Your task to perform on an android device: set an alarm Image 0: 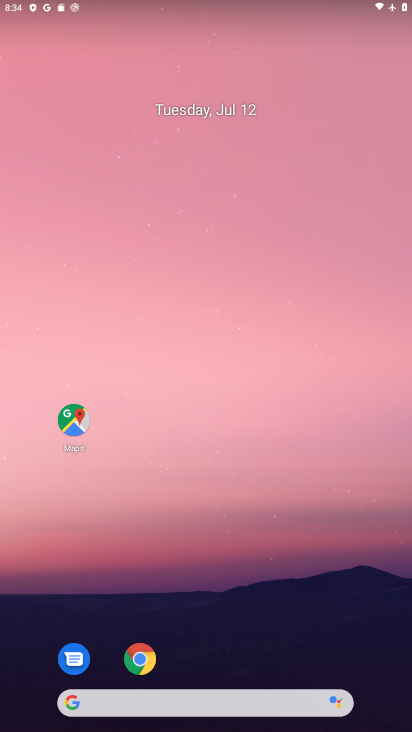
Step 0: drag from (290, 709) to (409, 277)
Your task to perform on an android device: set an alarm Image 1: 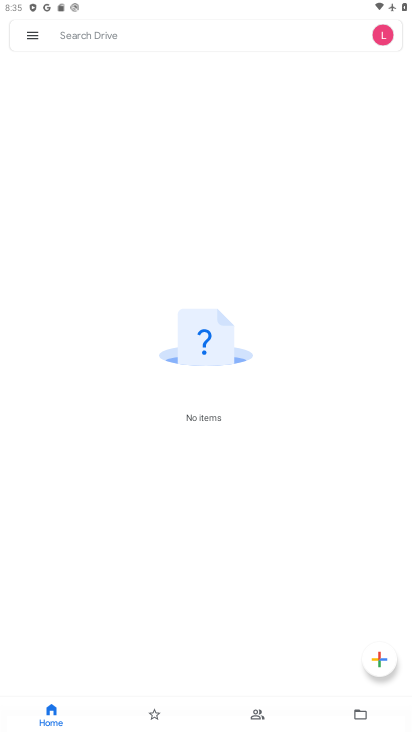
Step 1: press back button
Your task to perform on an android device: set an alarm Image 2: 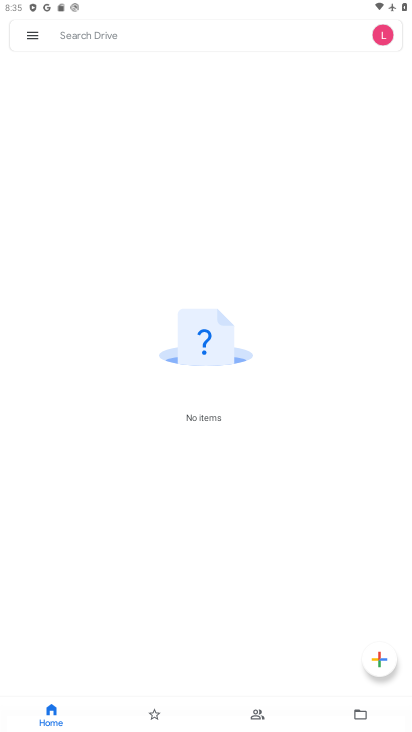
Step 2: press back button
Your task to perform on an android device: set an alarm Image 3: 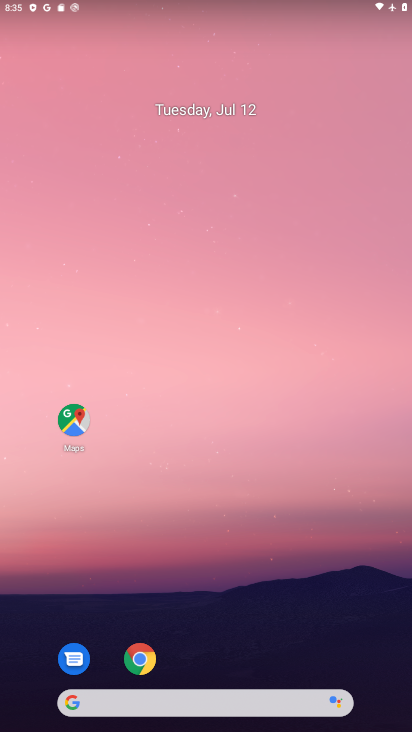
Step 3: drag from (229, 690) to (289, 208)
Your task to perform on an android device: set an alarm Image 4: 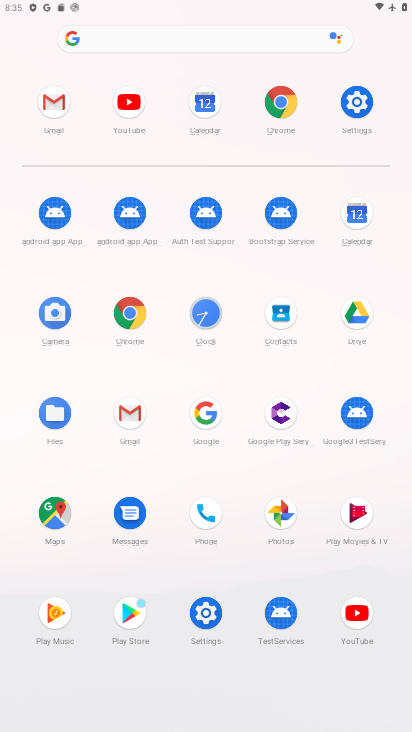
Step 4: click (211, 313)
Your task to perform on an android device: set an alarm Image 5: 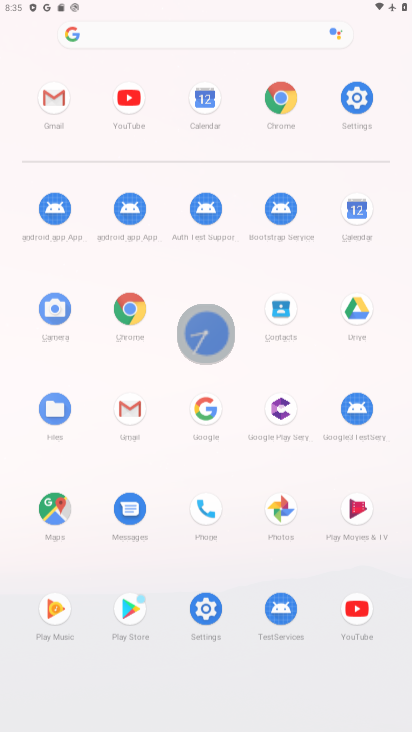
Step 5: click (213, 308)
Your task to perform on an android device: set an alarm Image 6: 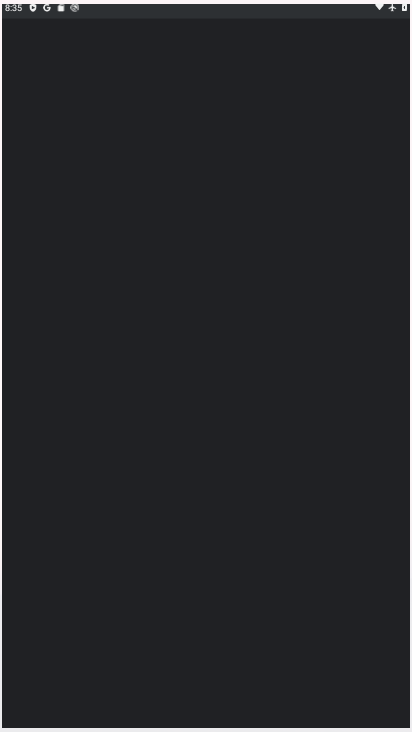
Step 6: click (213, 308)
Your task to perform on an android device: set an alarm Image 7: 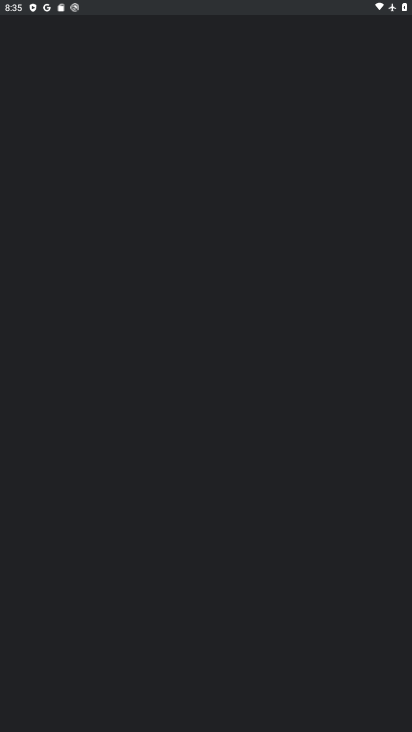
Step 7: click (215, 307)
Your task to perform on an android device: set an alarm Image 8: 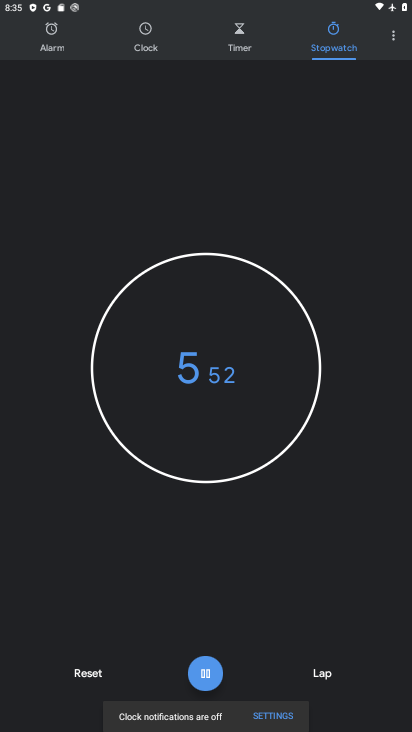
Step 8: click (203, 676)
Your task to perform on an android device: set an alarm Image 9: 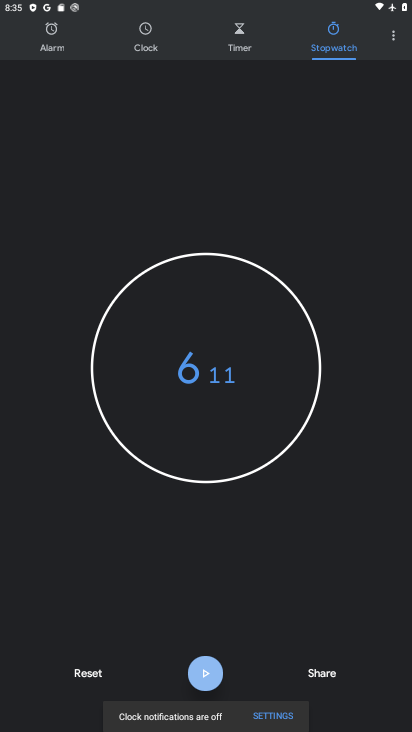
Step 9: click (205, 674)
Your task to perform on an android device: set an alarm Image 10: 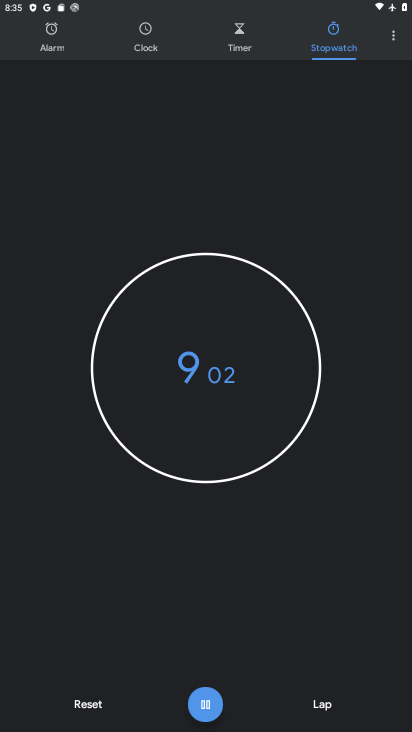
Step 10: click (208, 698)
Your task to perform on an android device: set an alarm Image 11: 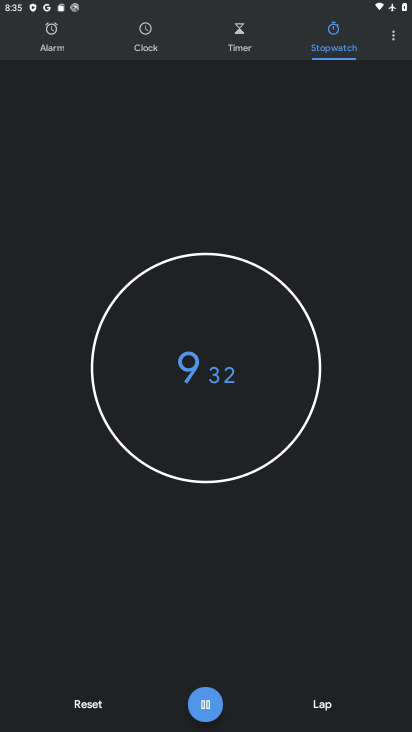
Step 11: click (211, 706)
Your task to perform on an android device: set an alarm Image 12: 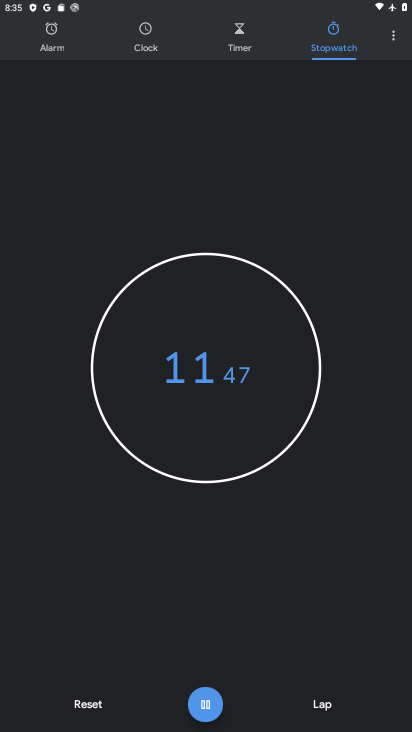
Step 12: click (201, 703)
Your task to perform on an android device: set an alarm Image 13: 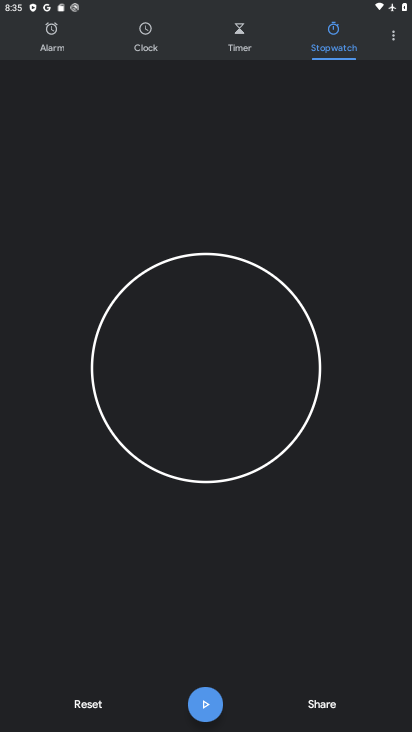
Step 13: click (49, 35)
Your task to perform on an android device: set an alarm Image 14: 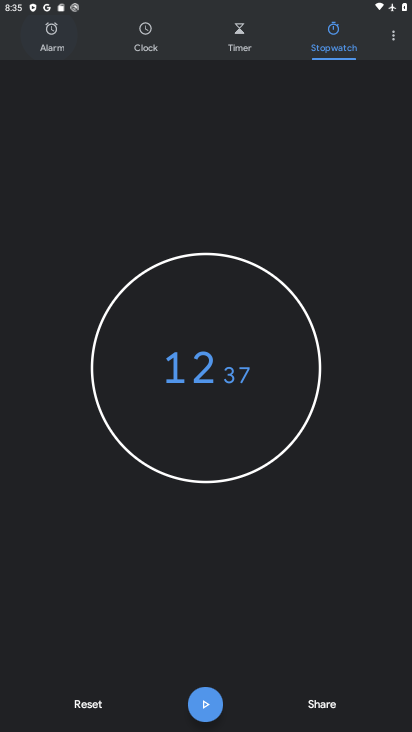
Step 14: click (49, 35)
Your task to perform on an android device: set an alarm Image 15: 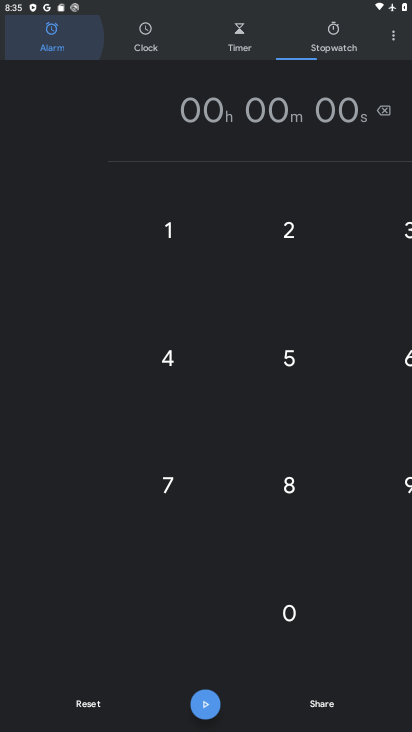
Step 15: click (50, 36)
Your task to perform on an android device: set an alarm Image 16: 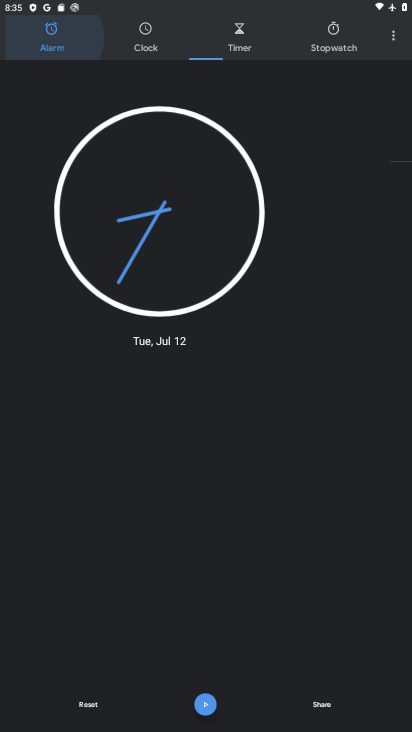
Step 16: click (51, 36)
Your task to perform on an android device: set an alarm Image 17: 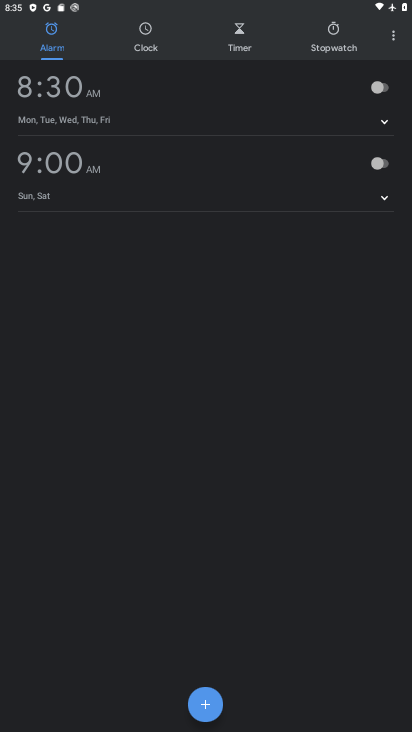
Step 17: click (377, 88)
Your task to perform on an android device: set an alarm Image 18: 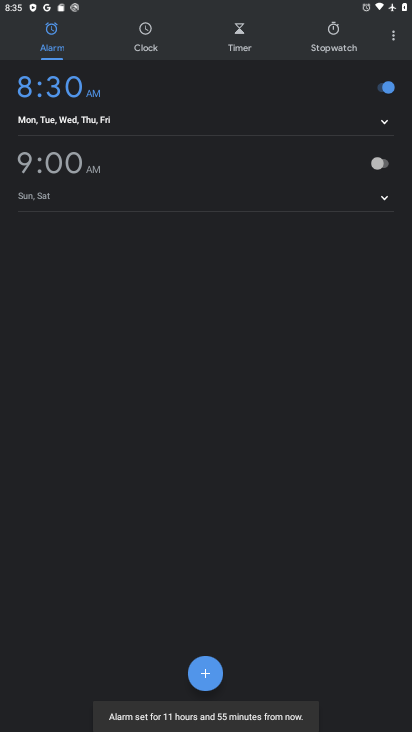
Step 18: task complete